Your task to perform on an android device: turn off priority inbox in the gmail app Image 0: 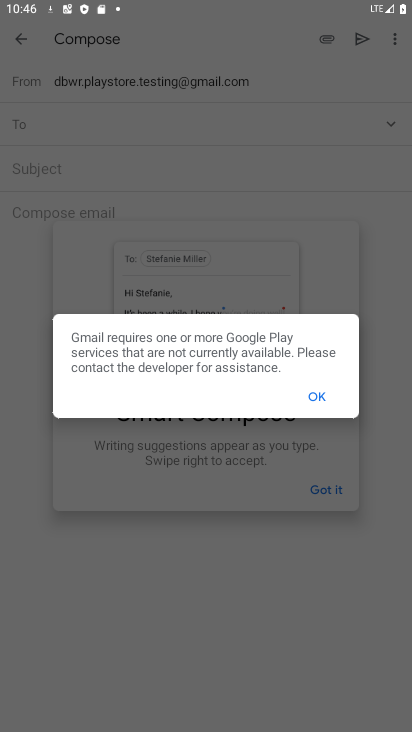
Step 0: press home button
Your task to perform on an android device: turn off priority inbox in the gmail app Image 1: 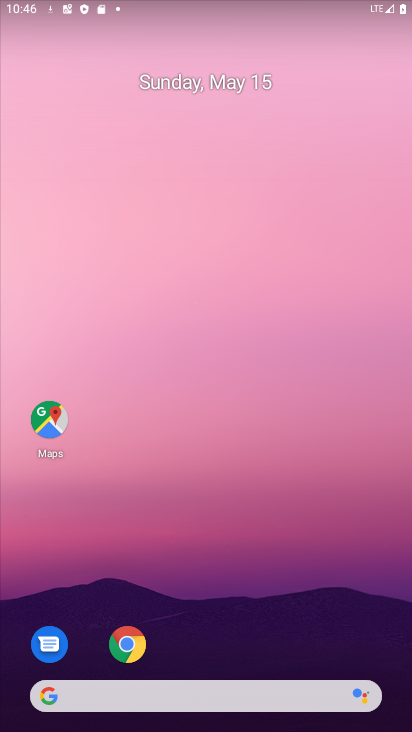
Step 1: drag from (273, 721) to (296, 261)
Your task to perform on an android device: turn off priority inbox in the gmail app Image 2: 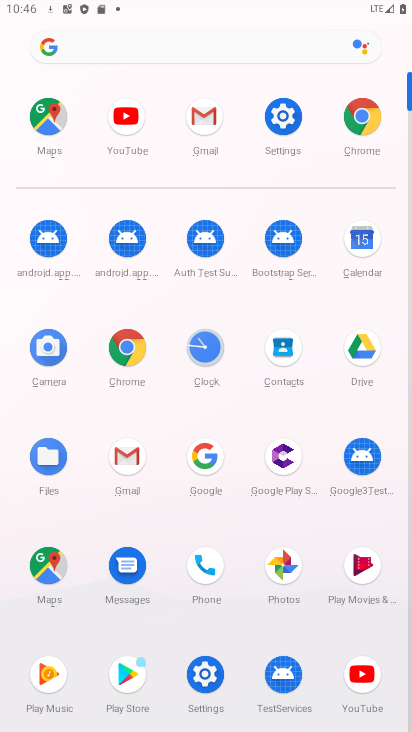
Step 2: click (203, 139)
Your task to perform on an android device: turn off priority inbox in the gmail app Image 3: 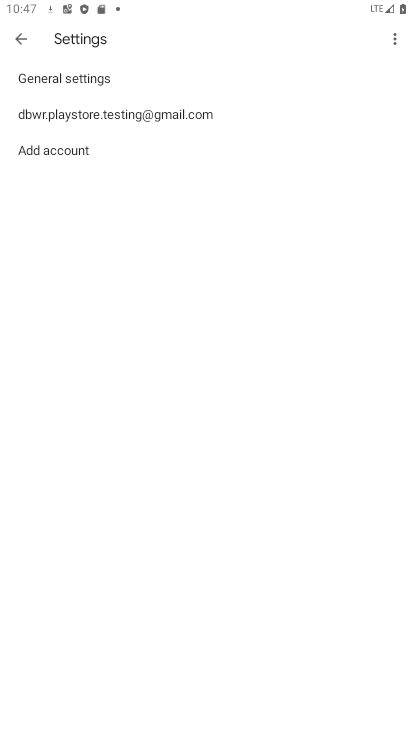
Step 3: click (137, 123)
Your task to perform on an android device: turn off priority inbox in the gmail app Image 4: 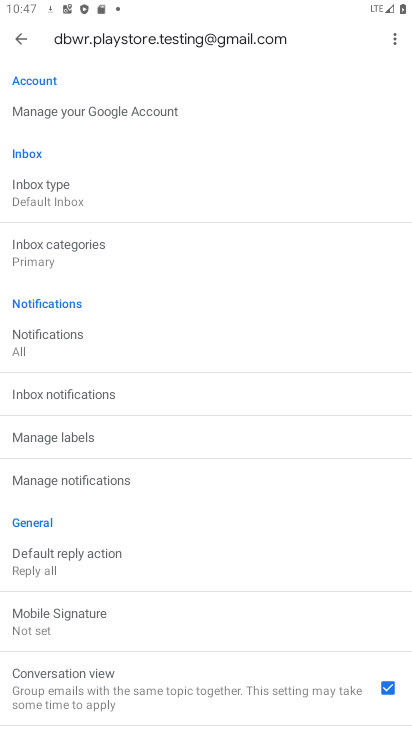
Step 4: click (88, 208)
Your task to perform on an android device: turn off priority inbox in the gmail app Image 5: 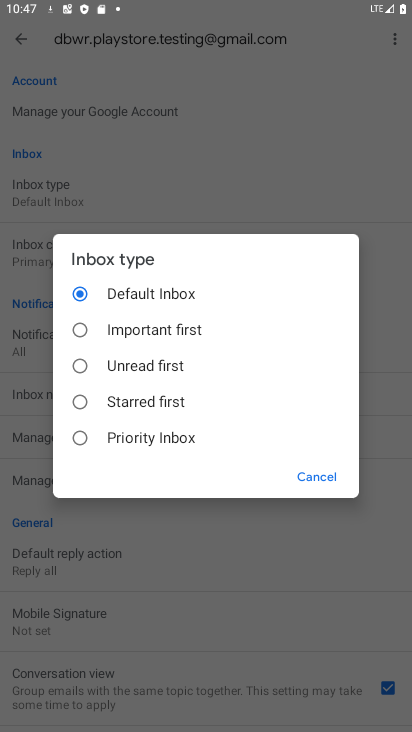
Step 5: task complete